Your task to perform on an android device: Open the map Image 0: 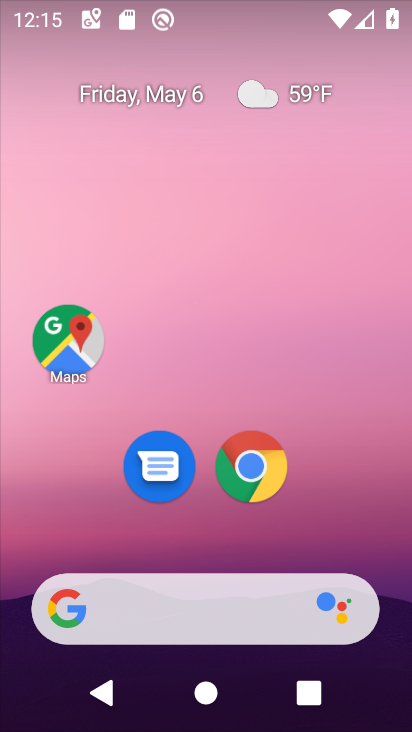
Step 0: click (84, 326)
Your task to perform on an android device: Open the map Image 1: 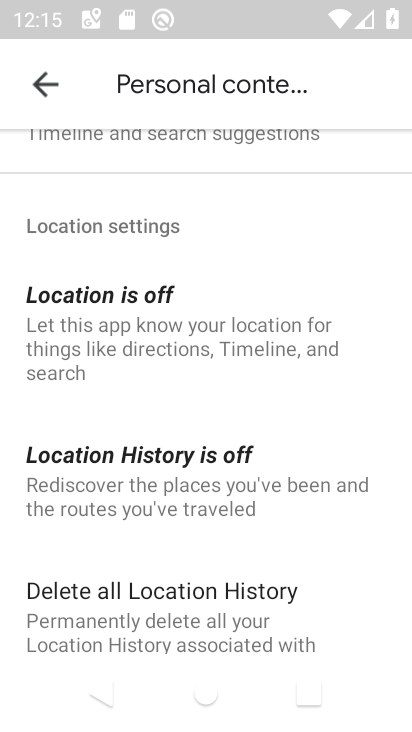
Step 1: click (33, 87)
Your task to perform on an android device: Open the map Image 2: 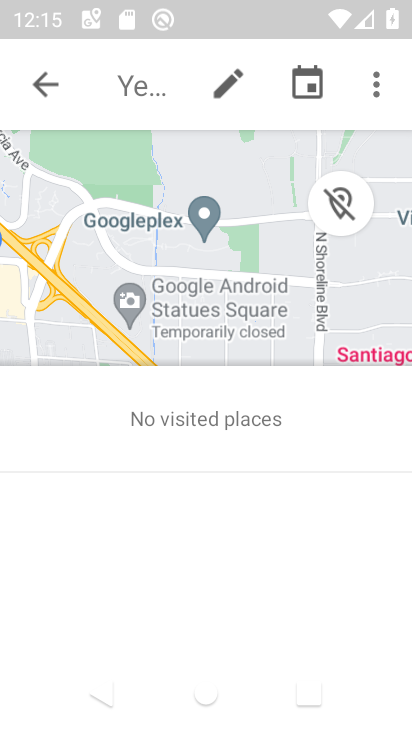
Step 2: task complete